Your task to perform on an android device: delete a single message in the gmail app Image 0: 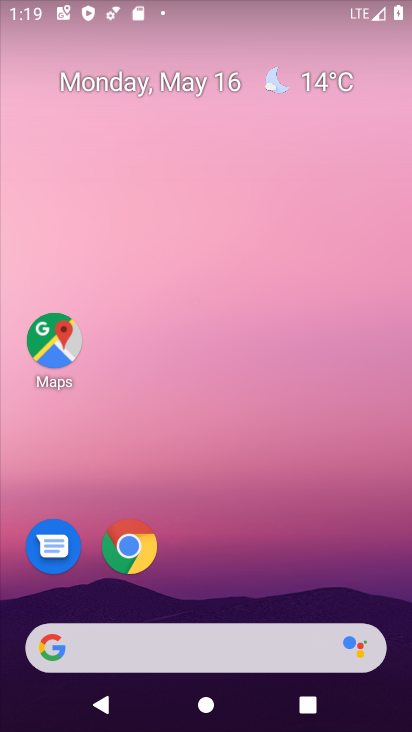
Step 0: drag from (265, 654) to (409, 146)
Your task to perform on an android device: delete a single message in the gmail app Image 1: 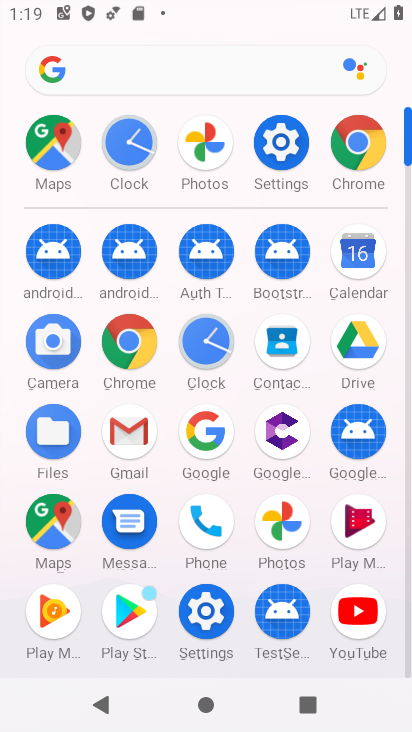
Step 1: click (125, 445)
Your task to perform on an android device: delete a single message in the gmail app Image 2: 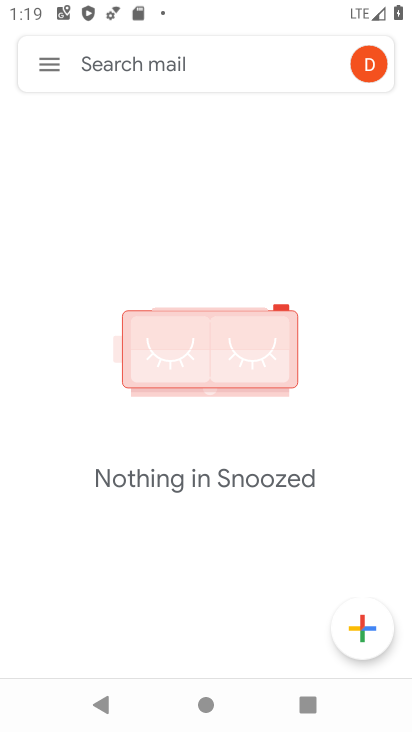
Step 2: click (43, 73)
Your task to perform on an android device: delete a single message in the gmail app Image 3: 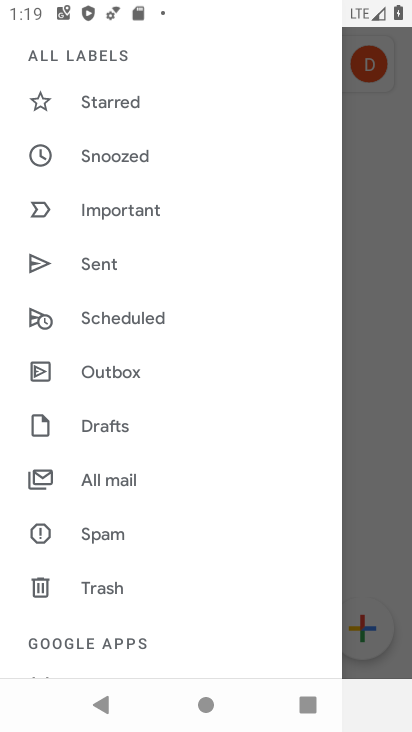
Step 3: drag from (70, 459) to (207, 292)
Your task to perform on an android device: delete a single message in the gmail app Image 4: 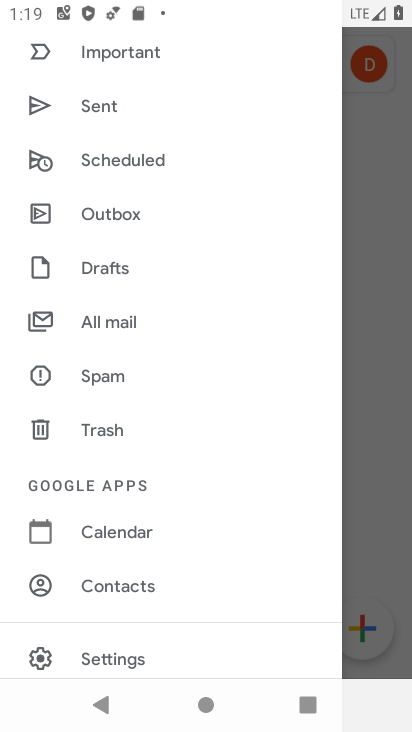
Step 4: click (108, 316)
Your task to perform on an android device: delete a single message in the gmail app Image 5: 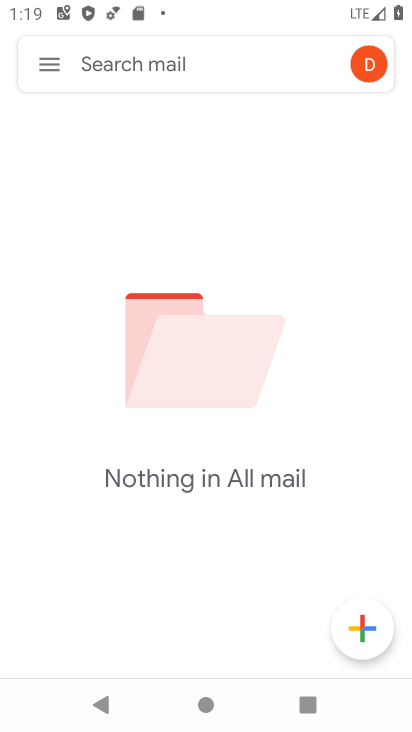
Step 5: task complete